Your task to perform on an android device: delete location history Image 0: 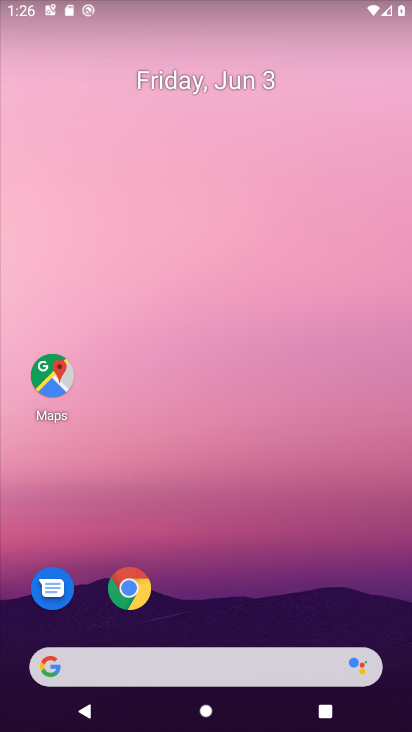
Step 0: drag from (259, 618) to (230, 65)
Your task to perform on an android device: delete location history Image 1: 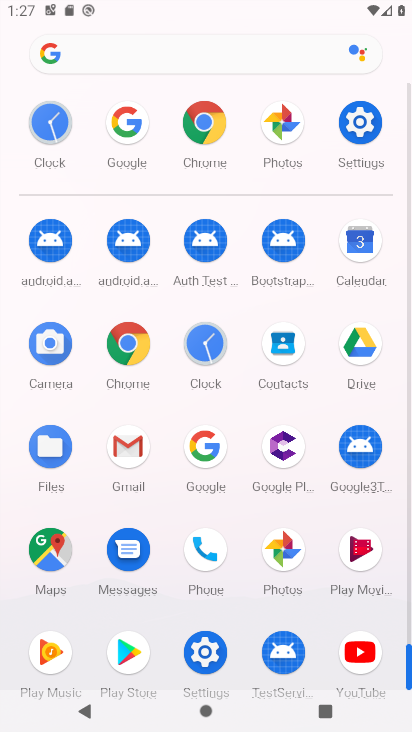
Step 1: click (355, 137)
Your task to perform on an android device: delete location history Image 2: 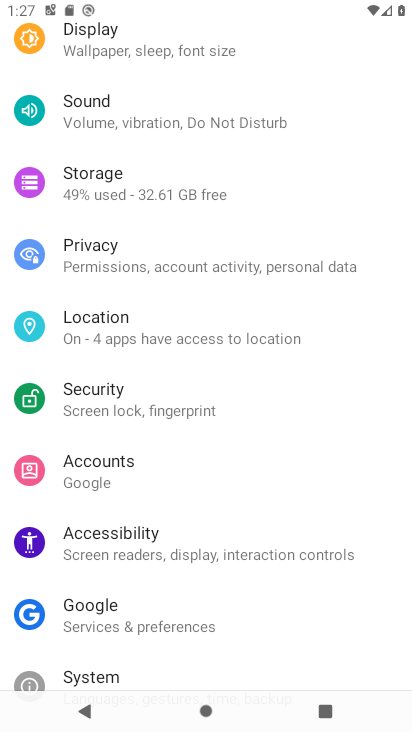
Step 2: click (199, 339)
Your task to perform on an android device: delete location history Image 3: 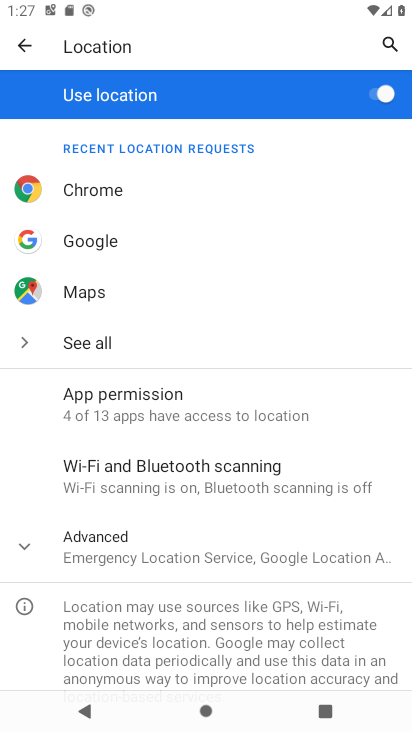
Step 3: click (198, 549)
Your task to perform on an android device: delete location history Image 4: 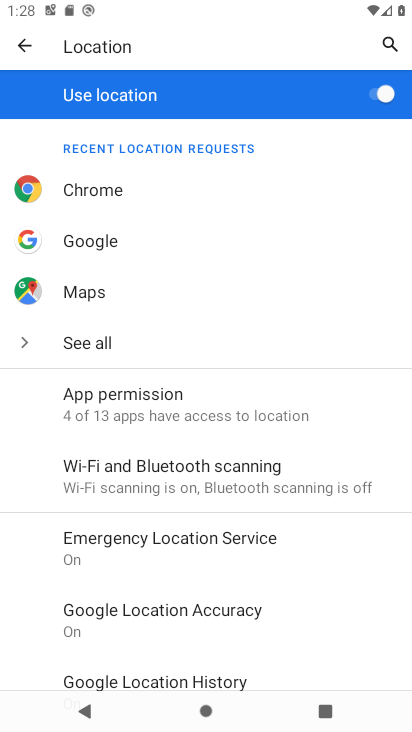
Step 4: click (219, 676)
Your task to perform on an android device: delete location history Image 5: 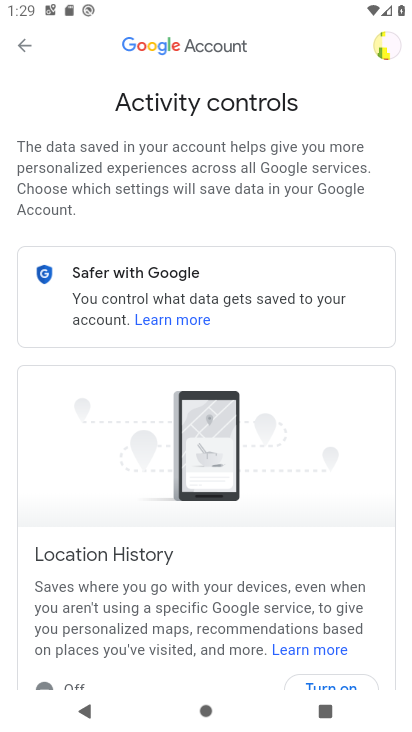
Step 5: drag from (206, 581) to (252, 177)
Your task to perform on an android device: delete location history Image 6: 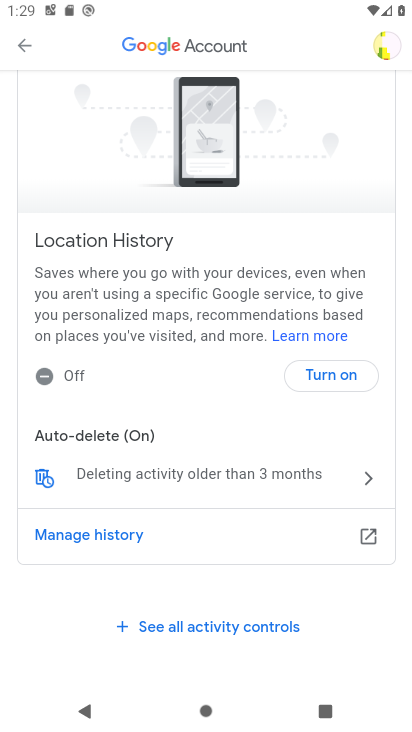
Step 6: drag from (199, 420) to (238, 170)
Your task to perform on an android device: delete location history Image 7: 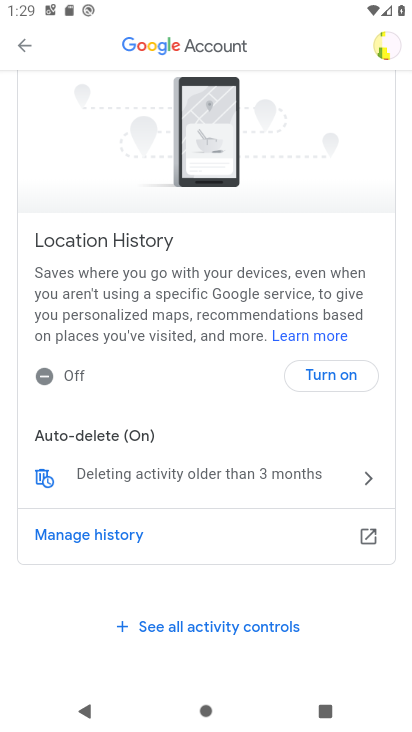
Step 7: click (183, 471)
Your task to perform on an android device: delete location history Image 8: 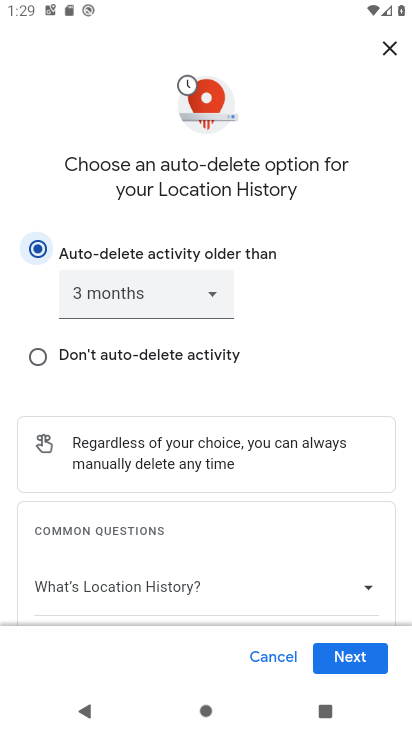
Step 8: click (323, 665)
Your task to perform on an android device: delete location history Image 9: 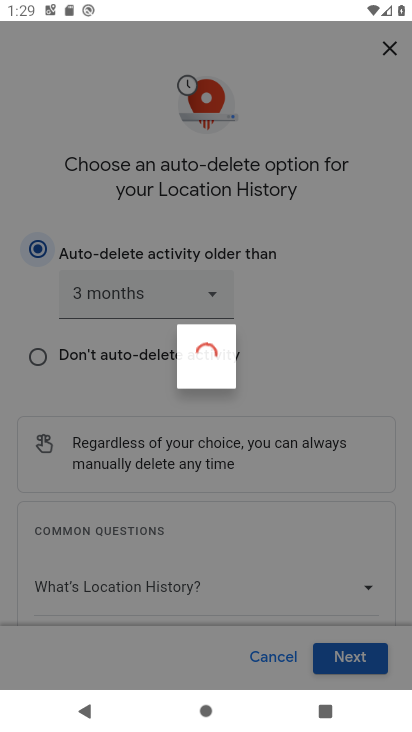
Step 9: click (348, 656)
Your task to perform on an android device: delete location history Image 10: 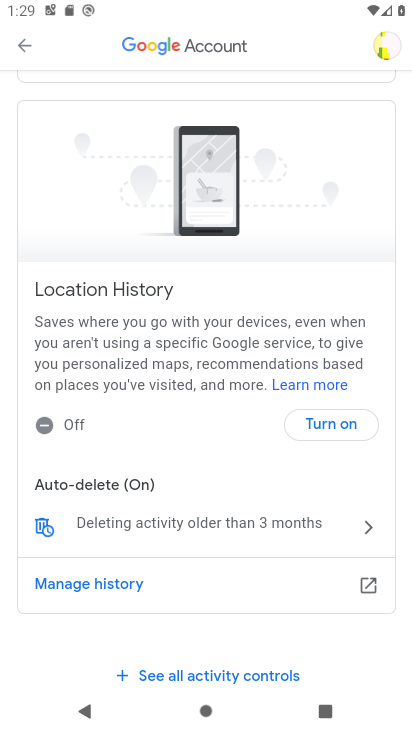
Step 10: task complete